Your task to perform on an android device: move a message to another label in the gmail app Image 0: 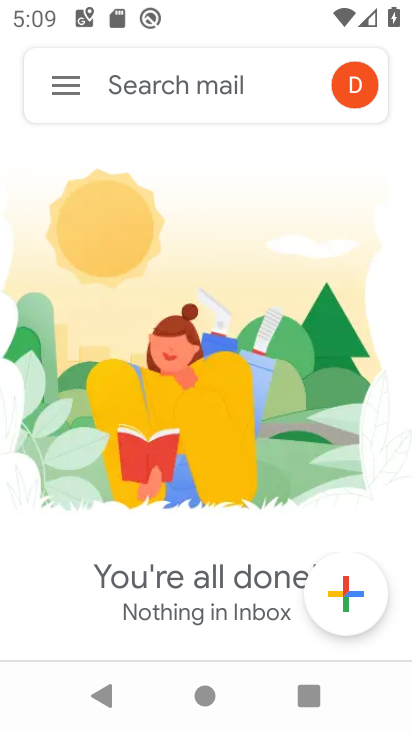
Step 0: press home button
Your task to perform on an android device: move a message to another label in the gmail app Image 1: 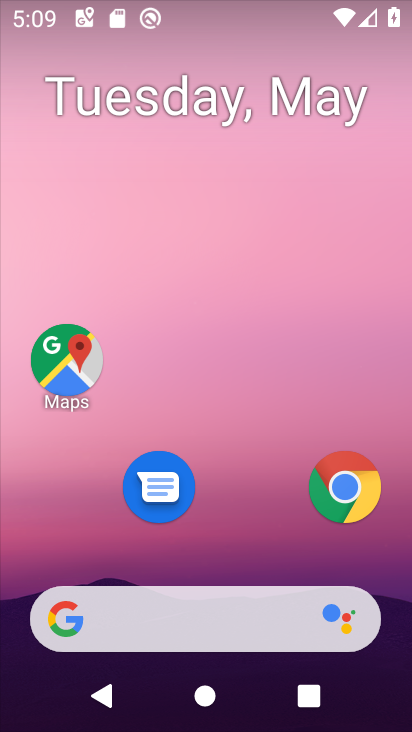
Step 1: drag from (251, 564) to (266, 131)
Your task to perform on an android device: move a message to another label in the gmail app Image 2: 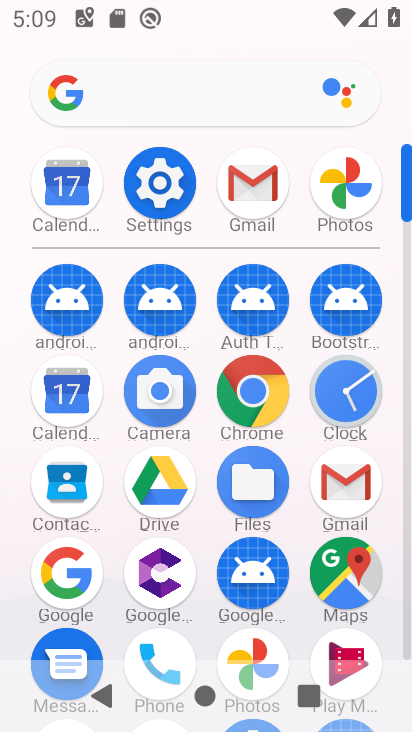
Step 2: click (258, 169)
Your task to perform on an android device: move a message to another label in the gmail app Image 3: 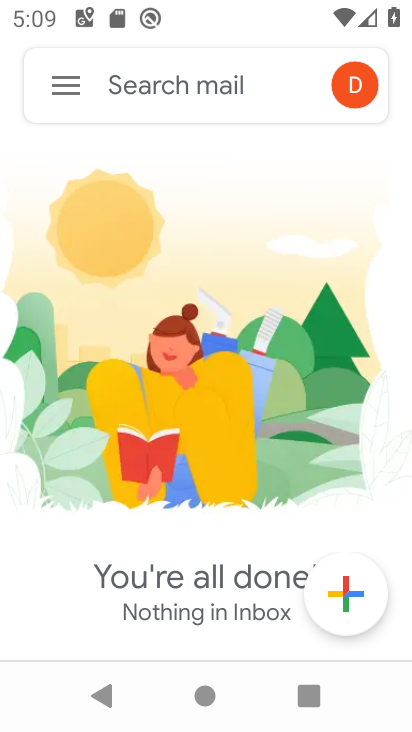
Step 3: click (80, 86)
Your task to perform on an android device: move a message to another label in the gmail app Image 4: 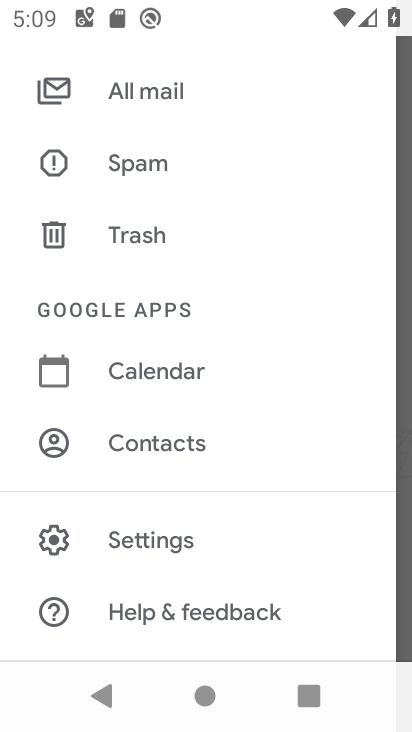
Step 4: click (171, 109)
Your task to perform on an android device: move a message to another label in the gmail app Image 5: 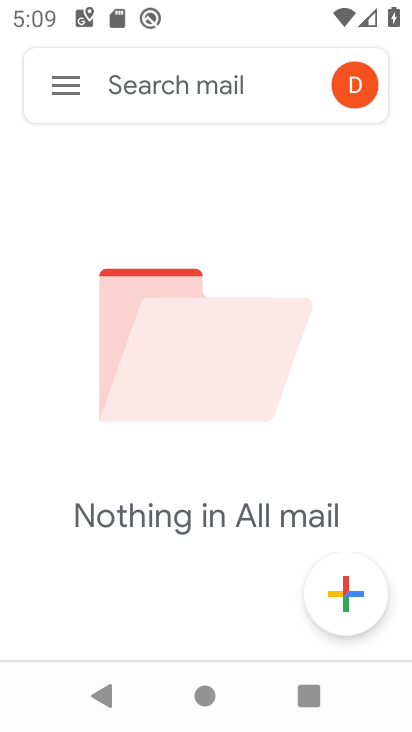
Step 5: task complete